Your task to perform on an android device: open app "DoorDash - Dasher" (install if not already installed) Image 0: 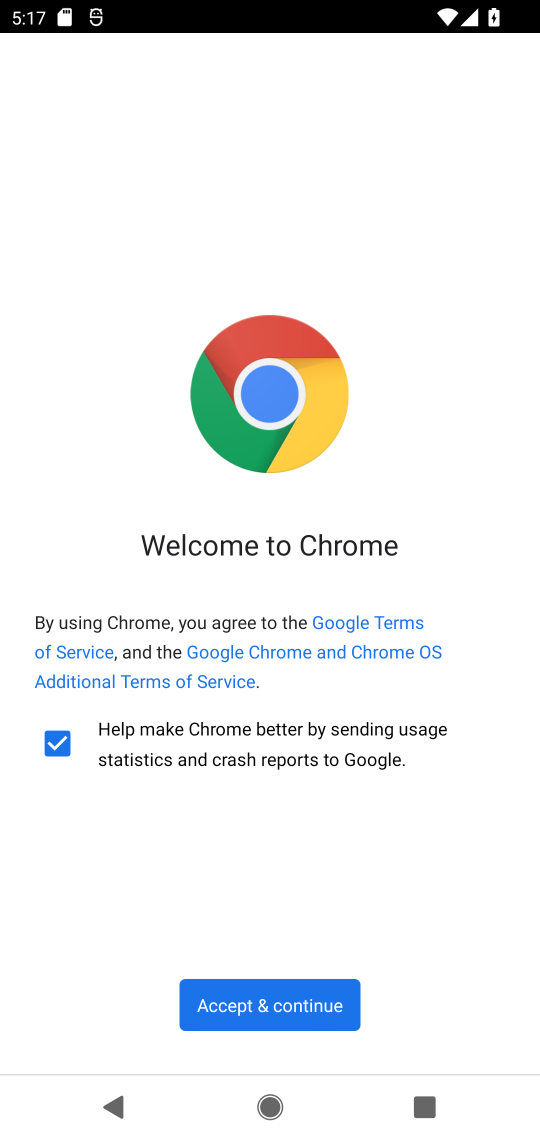
Step 0: press home button
Your task to perform on an android device: open app "DoorDash - Dasher" (install if not already installed) Image 1: 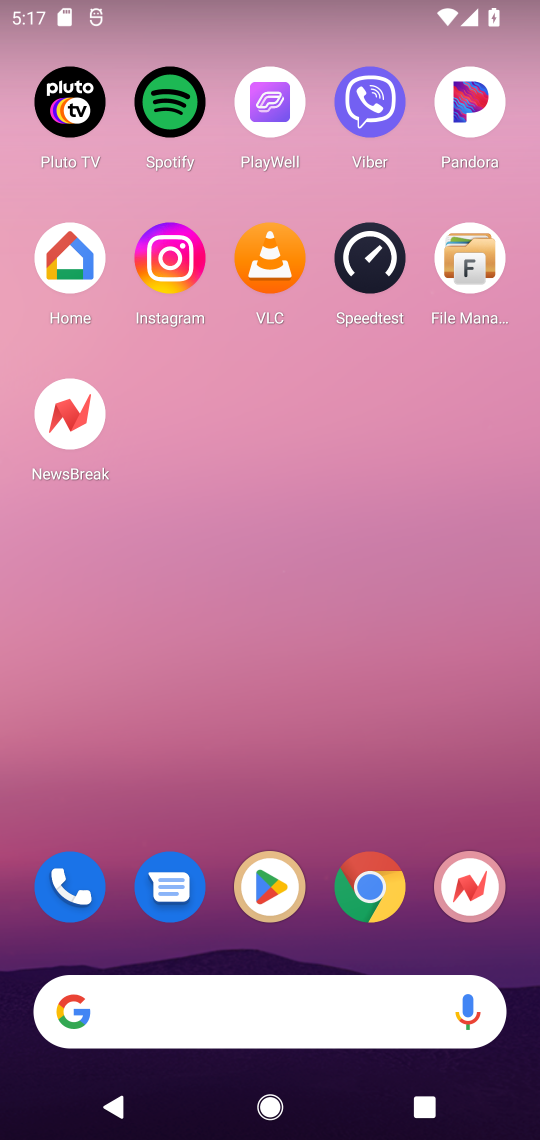
Step 1: click (275, 886)
Your task to perform on an android device: open app "DoorDash - Dasher" (install if not already installed) Image 2: 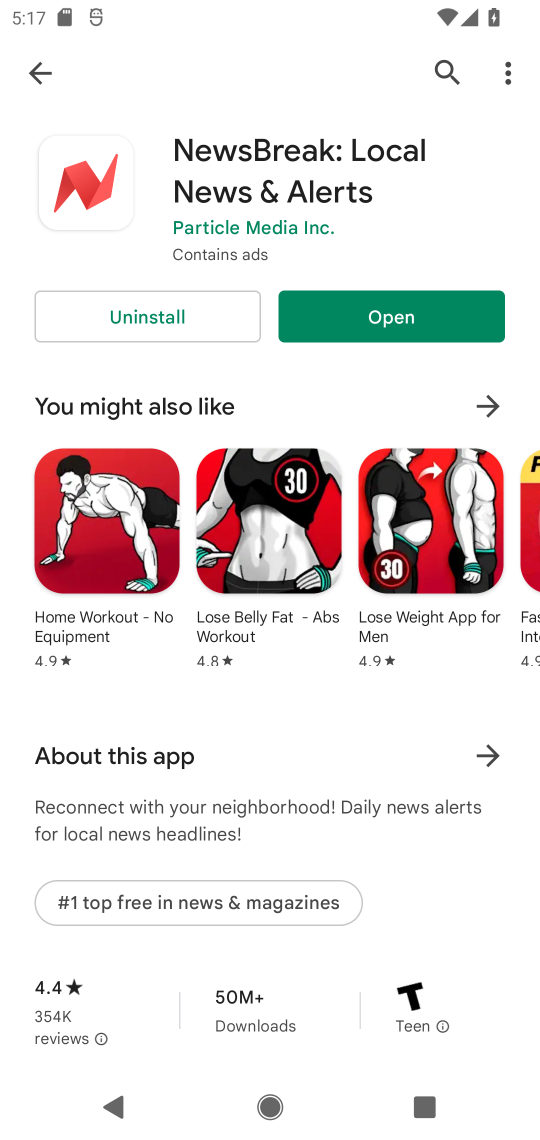
Step 2: click (445, 67)
Your task to perform on an android device: open app "DoorDash - Dasher" (install if not already installed) Image 3: 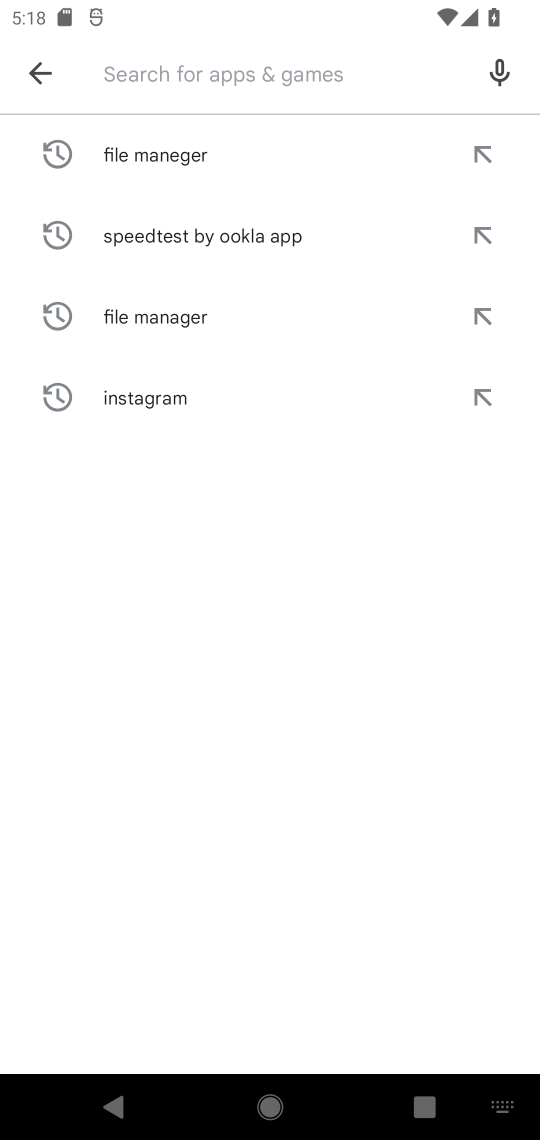
Step 3: type "DoorDash - Dasher"
Your task to perform on an android device: open app "DoorDash - Dasher" (install if not already installed) Image 4: 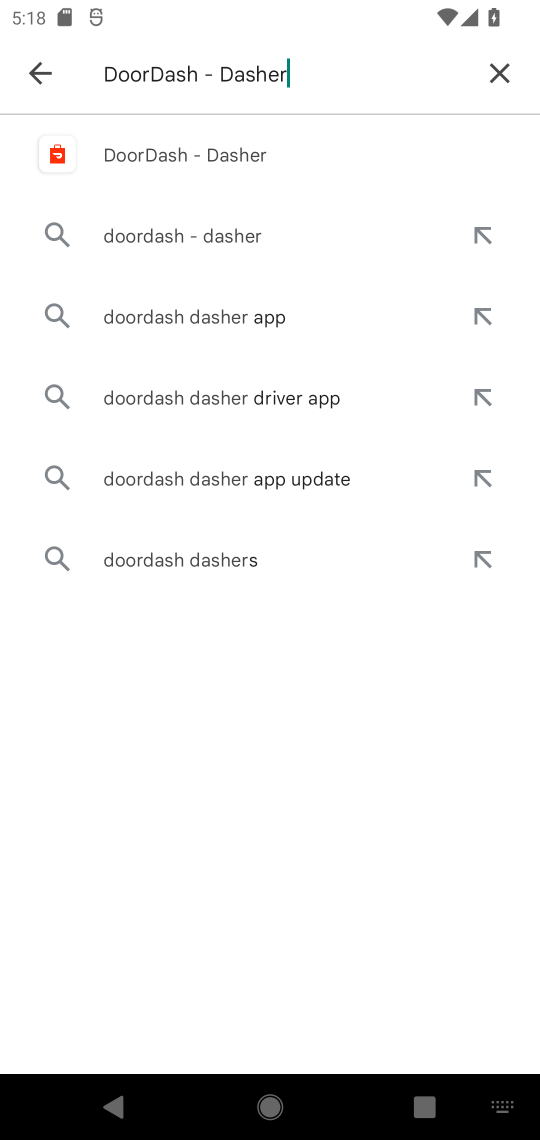
Step 4: click (195, 145)
Your task to perform on an android device: open app "DoorDash - Dasher" (install if not already installed) Image 5: 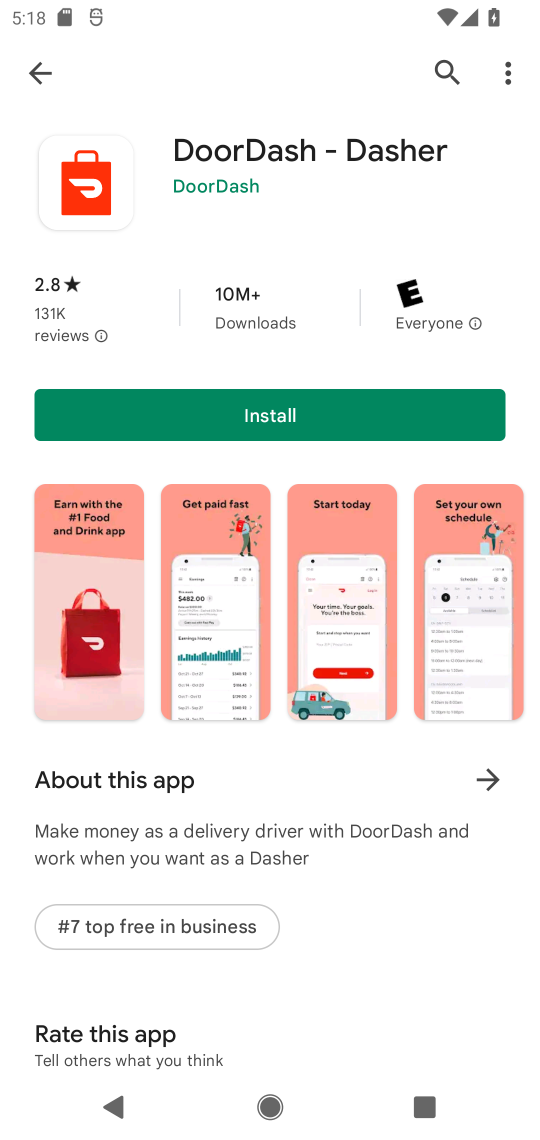
Step 5: click (298, 415)
Your task to perform on an android device: open app "DoorDash - Dasher" (install if not already installed) Image 6: 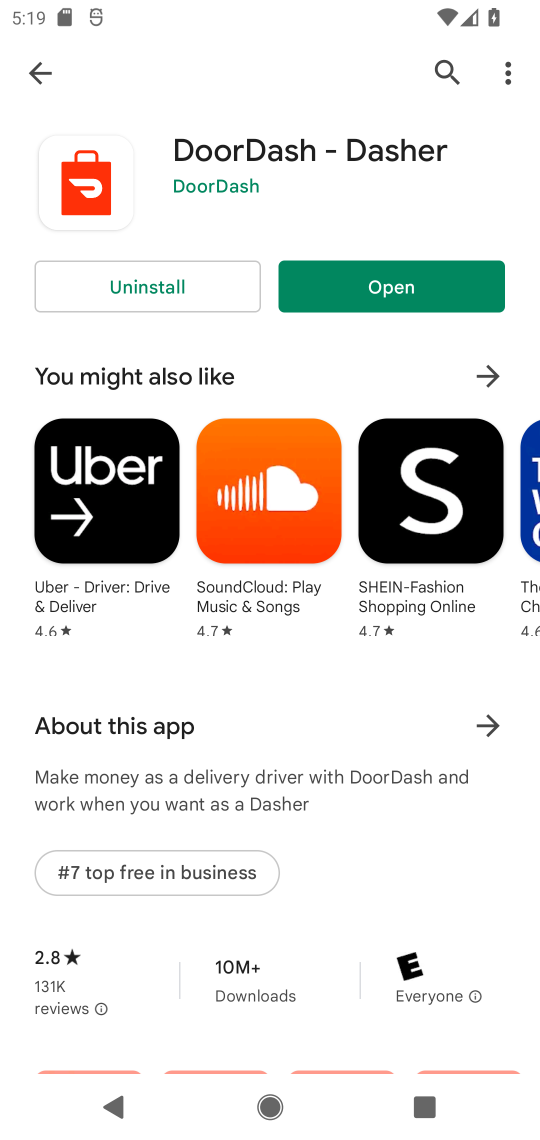
Step 6: click (373, 291)
Your task to perform on an android device: open app "DoorDash - Dasher" (install if not already installed) Image 7: 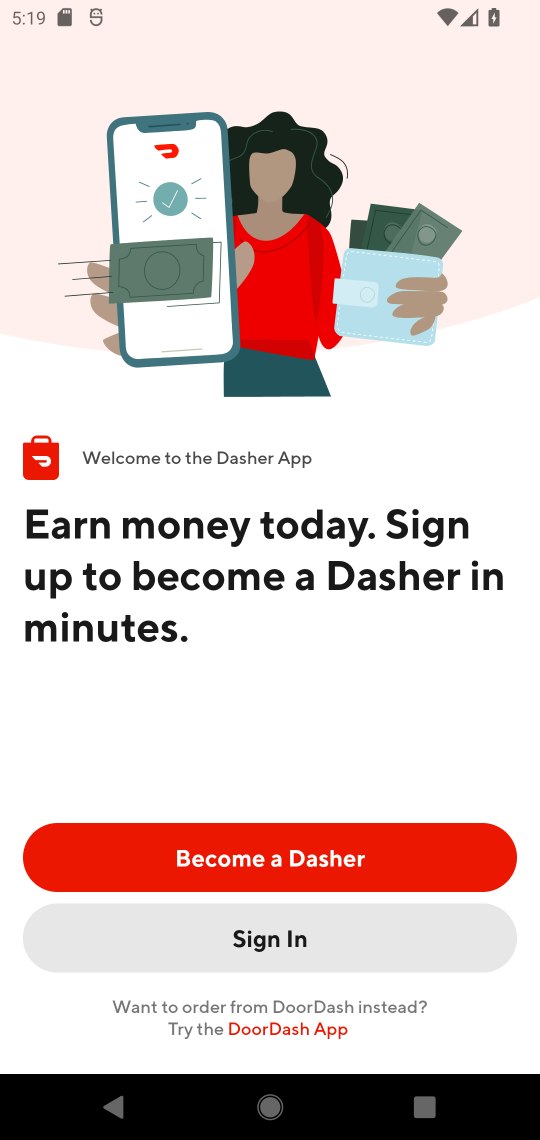
Step 7: task complete